Your task to perform on an android device: stop showing notifications on the lock screen Image 0: 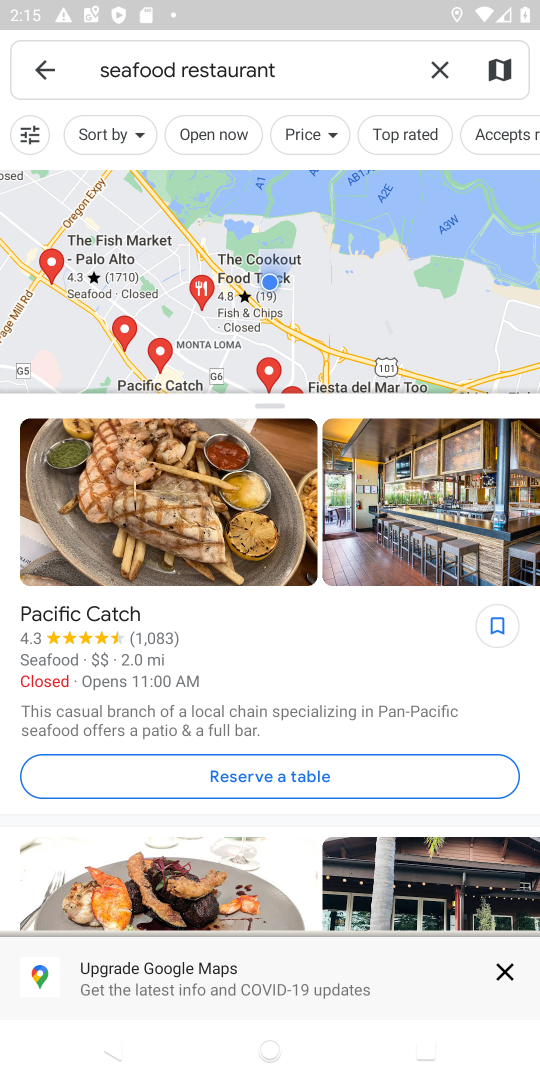
Step 0: press back button
Your task to perform on an android device: stop showing notifications on the lock screen Image 1: 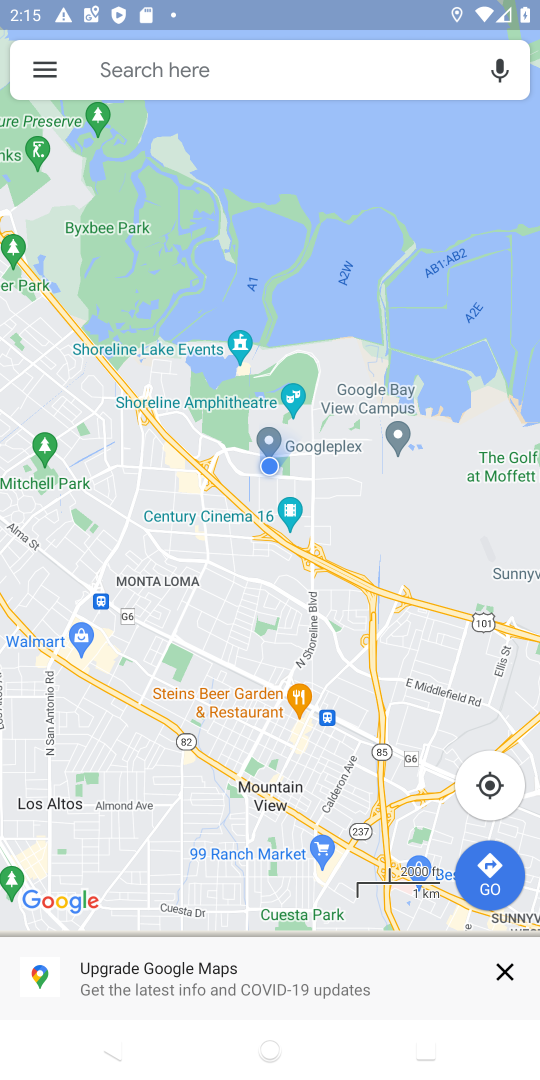
Step 1: press back button
Your task to perform on an android device: stop showing notifications on the lock screen Image 2: 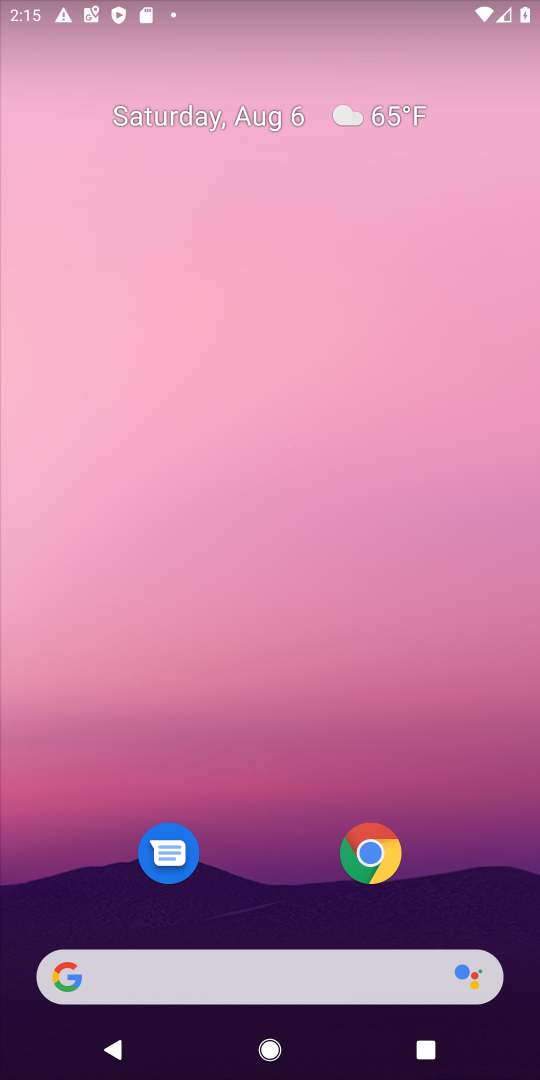
Step 2: drag from (268, 874) to (302, 91)
Your task to perform on an android device: stop showing notifications on the lock screen Image 3: 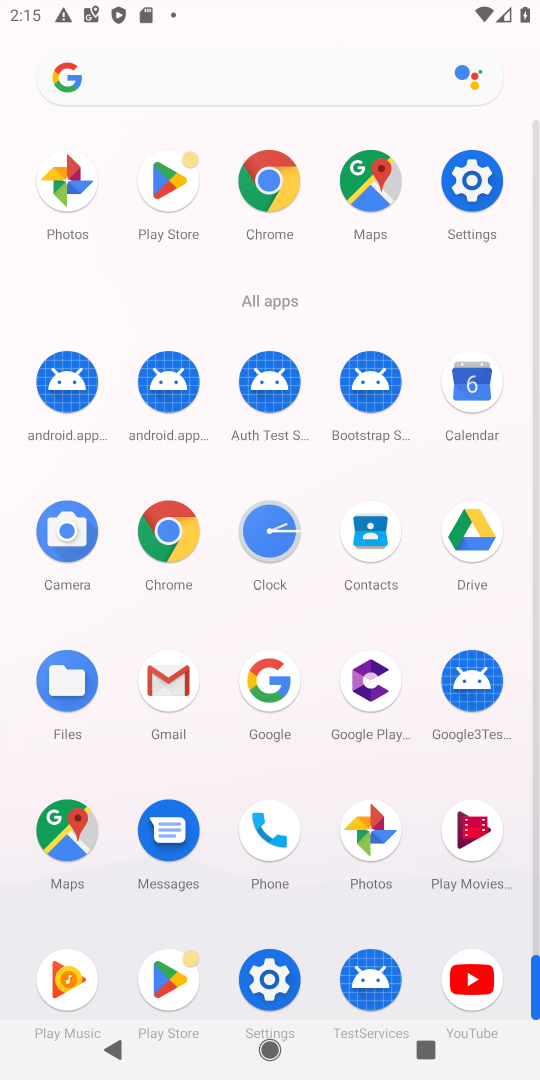
Step 3: click (471, 190)
Your task to perform on an android device: stop showing notifications on the lock screen Image 4: 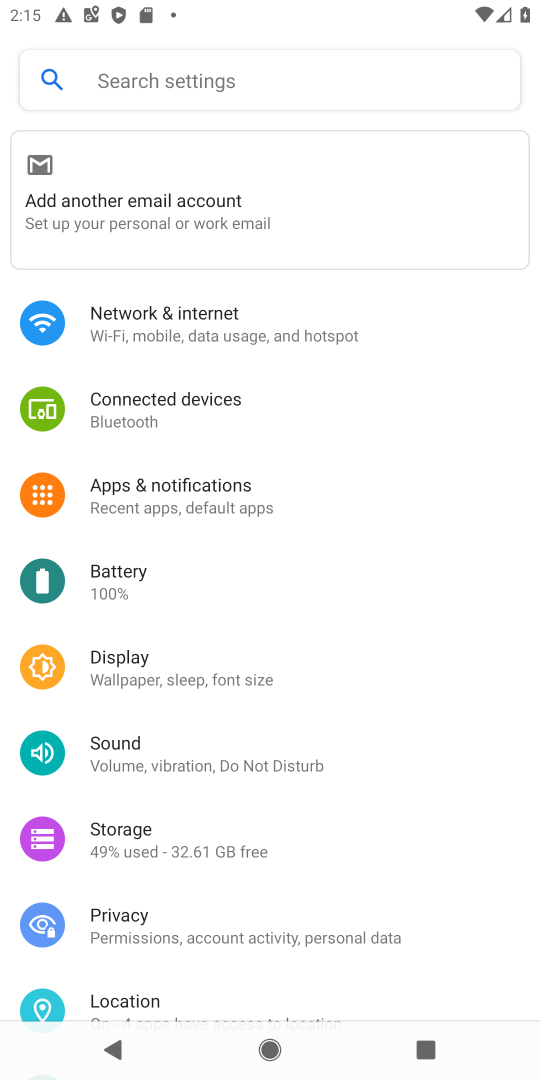
Step 4: drag from (211, 952) to (274, 859)
Your task to perform on an android device: stop showing notifications on the lock screen Image 5: 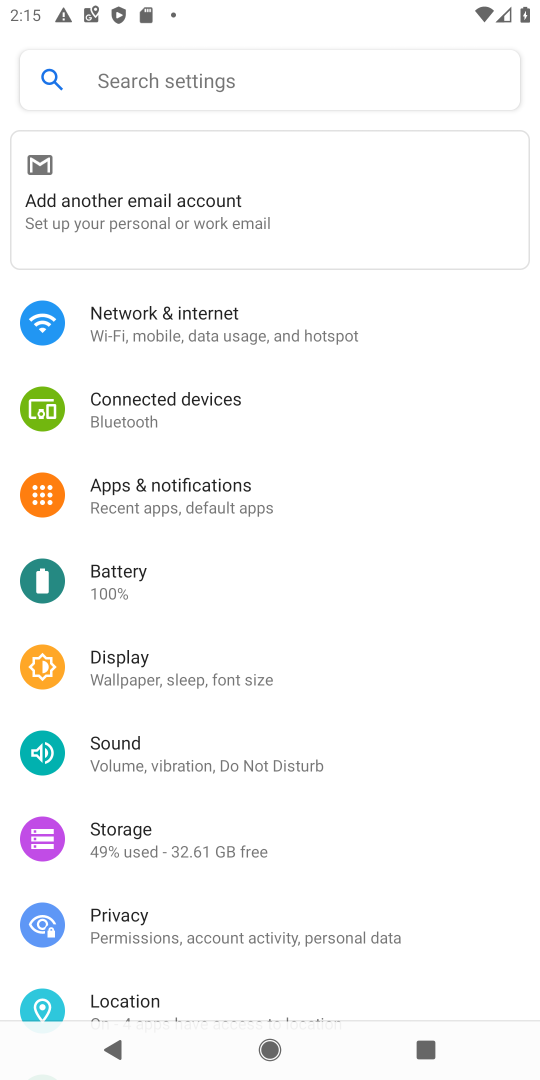
Step 5: click (298, 488)
Your task to perform on an android device: stop showing notifications on the lock screen Image 6: 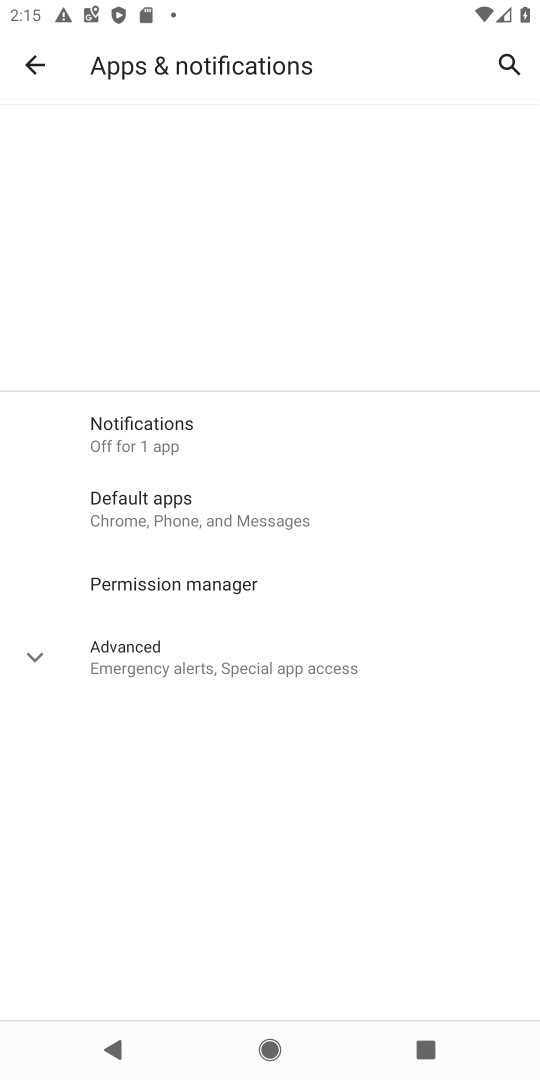
Step 6: drag from (221, 915) to (295, 473)
Your task to perform on an android device: stop showing notifications on the lock screen Image 7: 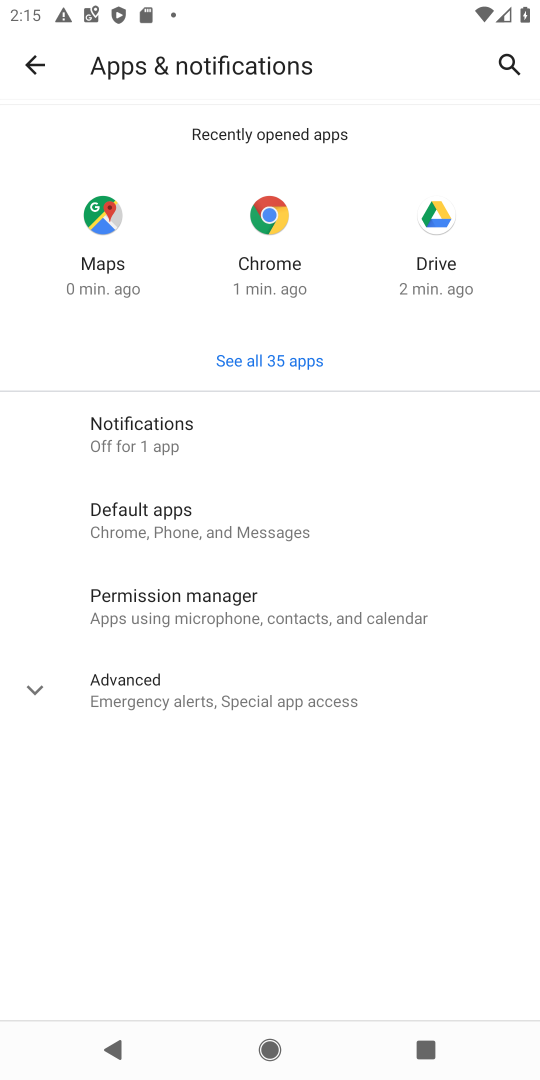
Step 7: click (249, 423)
Your task to perform on an android device: stop showing notifications on the lock screen Image 8: 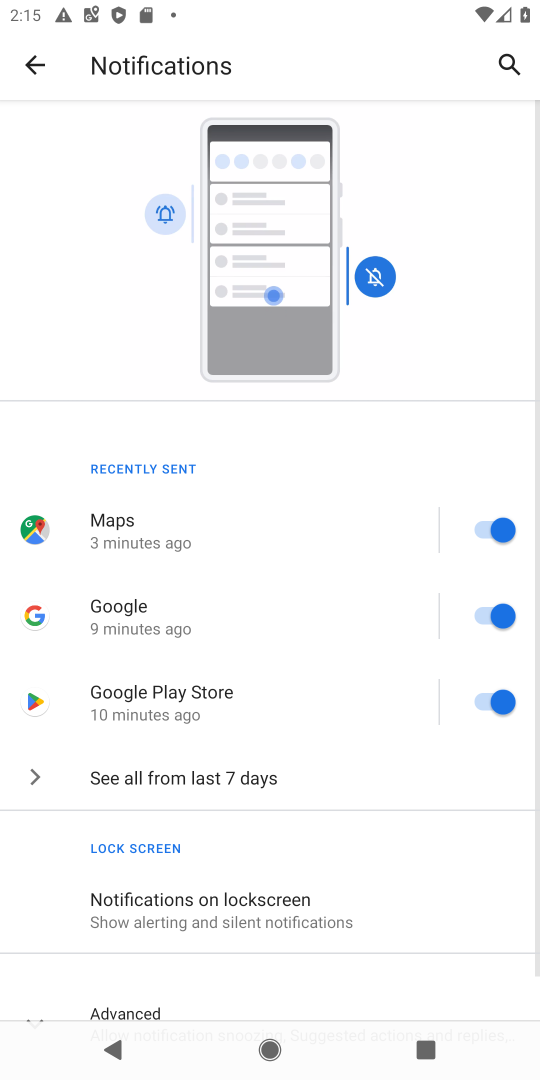
Step 8: drag from (210, 918) to (264, 564)
Your task to perform on an android device: stop showing notifications on the lock screen Image 9: 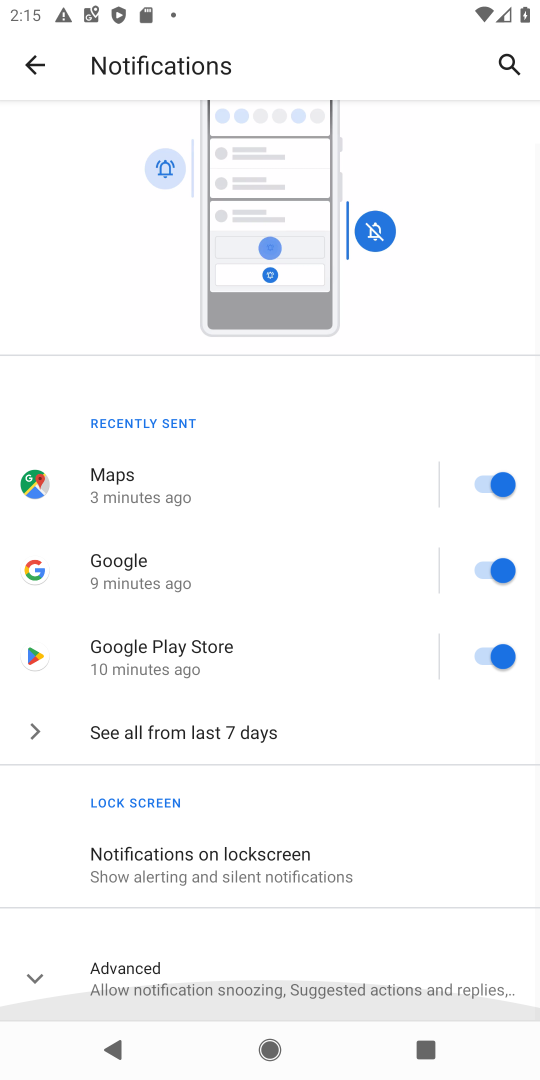
Step 9: click (148, 875)
Your task to perform on an android device: stop showing notifications on the lock screen Image 10: 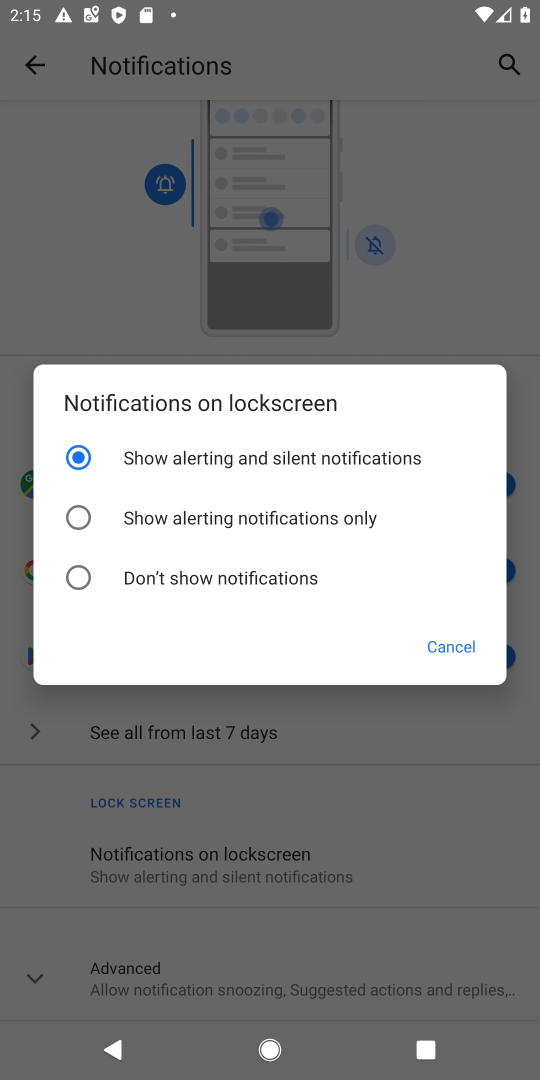
Step 10: click (100, 563)
Your task to perform on an android device: stop showing notifications on the lock screen Image 11: 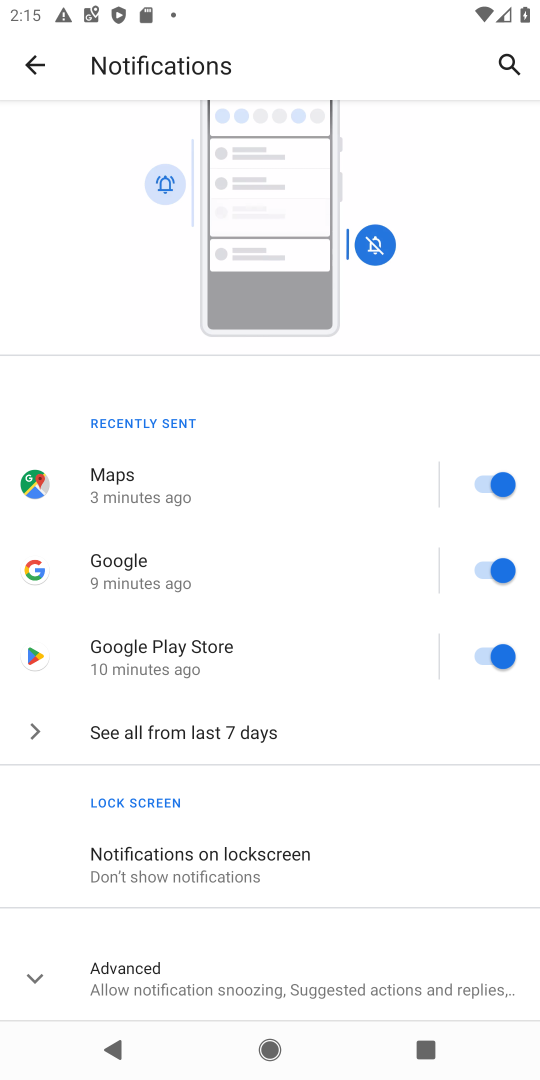
Step 11: task complete